Your task to perform on an android device: change keyboard looks Image 0: 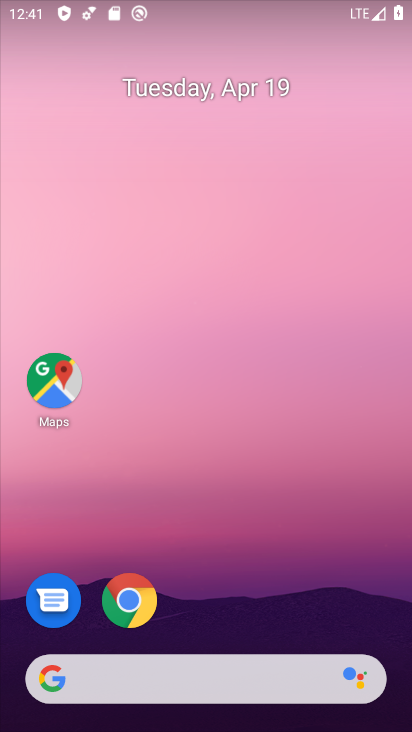
Step 0: drag from (247, 615) to (257, 102)
Your task to perform on an android device: change keyboard looks Image 1: 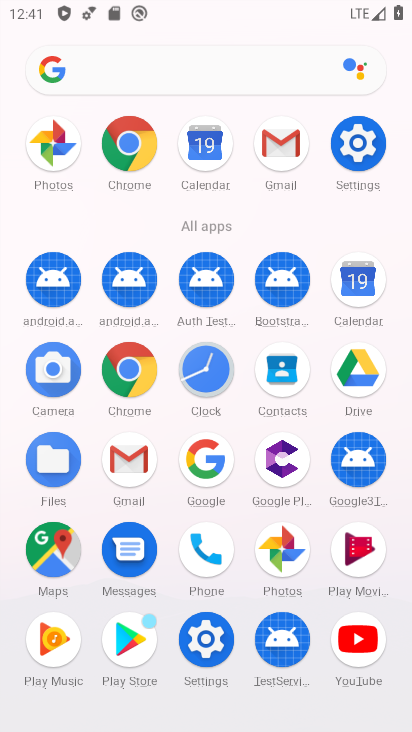
Step 1: click (359, 148)
Your task to perform on an android device: change keyboard looks Image 2: 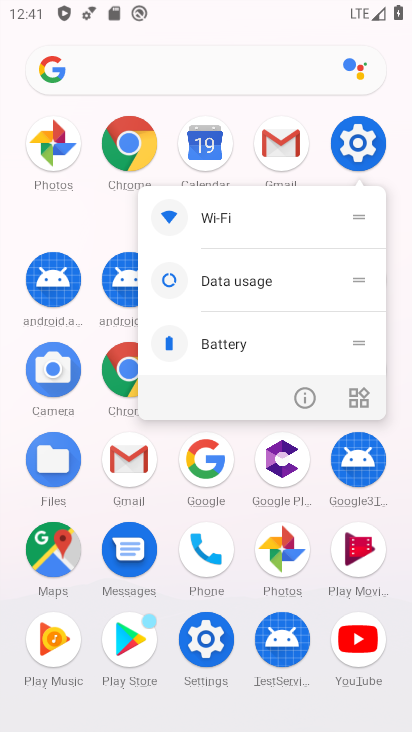
Step 2: click (359, 148)
Your task to perform on an android device: change keyboard looks Image 3: 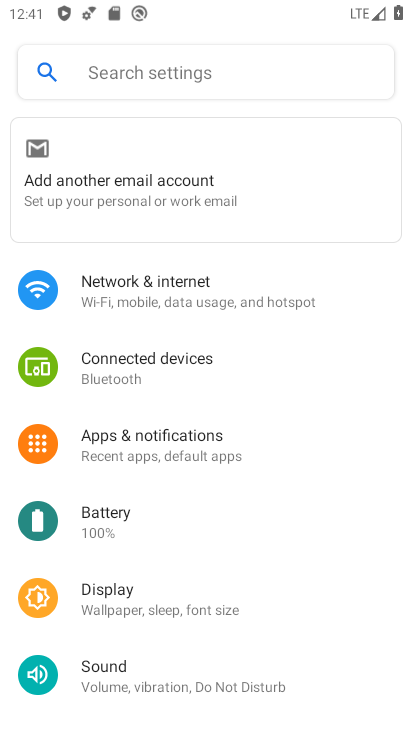
Step 3: drag from (259, 595) to (286, 124)
Your task to perform on an android device: change keyboard looks Image 4: 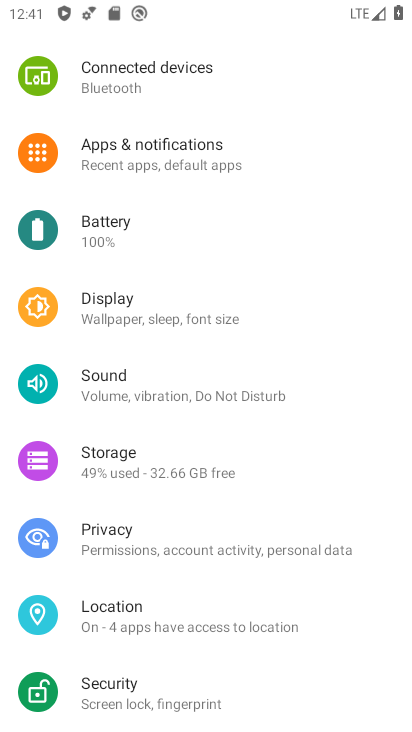
Step 4: drag from (189, 582) to (198, 108)
Your task to perform on an android device: change keyboard looks Image 5: 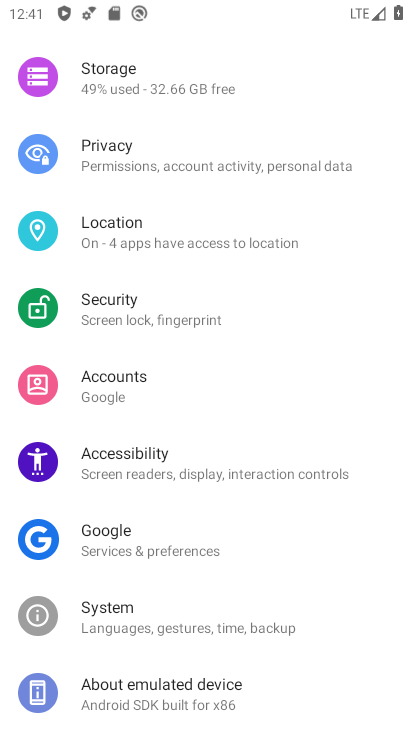
Step 5: drag from (228, 626) to (264, 202)
Your task to perform on an android device: change keyboard looks Image 6: 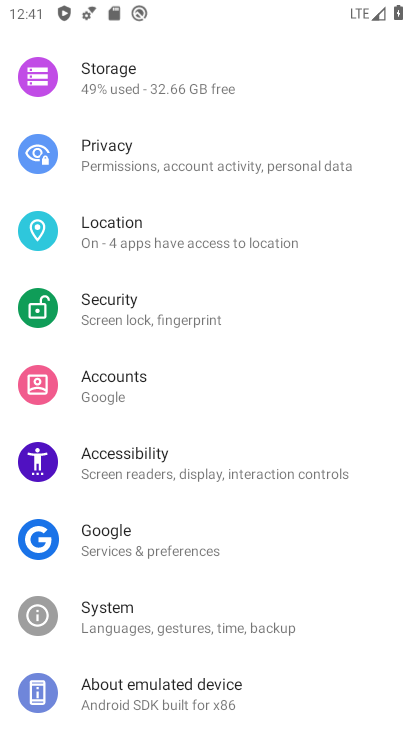
Step 6: click (149, 616)
Your task to perform on an android device: change keyboard looks Image 7: 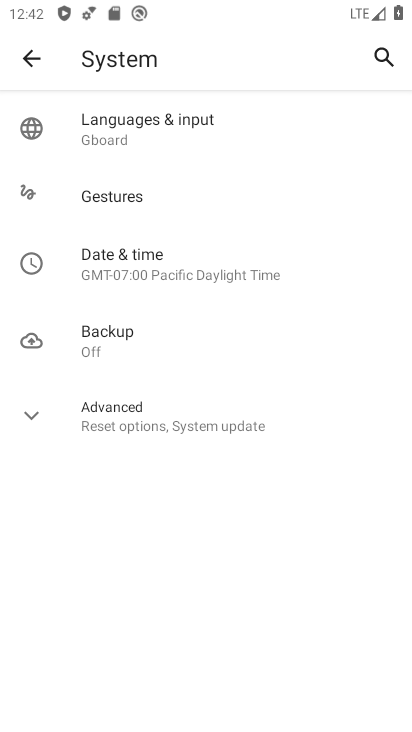
Step 7: click (202, 118)
Your task to perform on an android device: change keyboard looks Image 8: 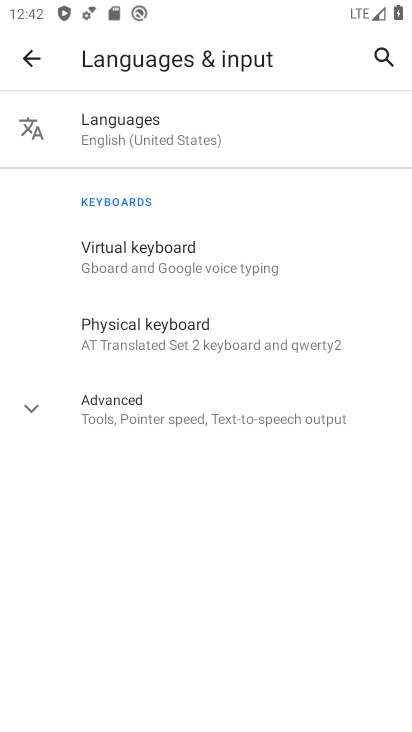
Step 8: click (156, 270)
Your task to perform on an android device: change keyboard looks Image 9: 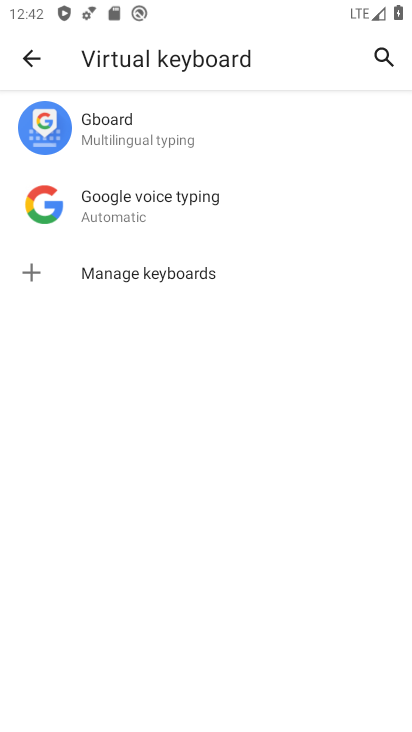
Step 9: click (162, 135)
Your task to perform on an android device: change keyboard looks Image 10: 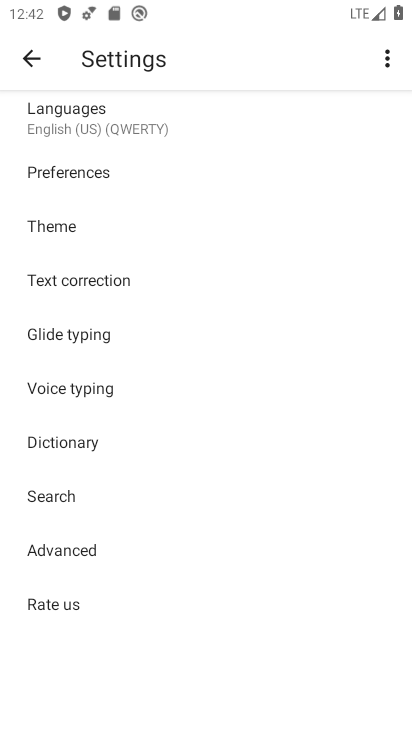
Step 10: click (71, 222)
Your task to perform on an android device: change keyboard looks Image 11: 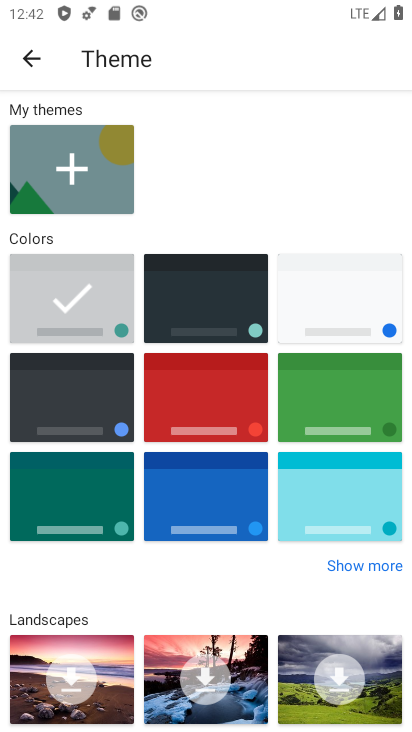
Step 11: click (362, 294)
Your task to perform on an android device: change keyboard looks Image 12: 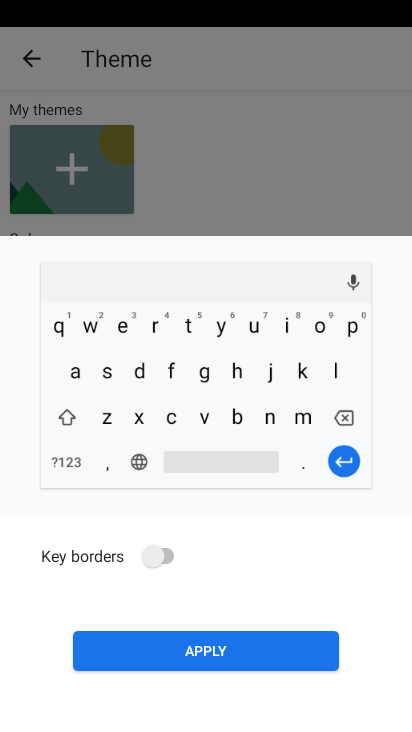
Step 12: click (260, 658)
Your task to perform on an android device: change keyboard looks Image 13: 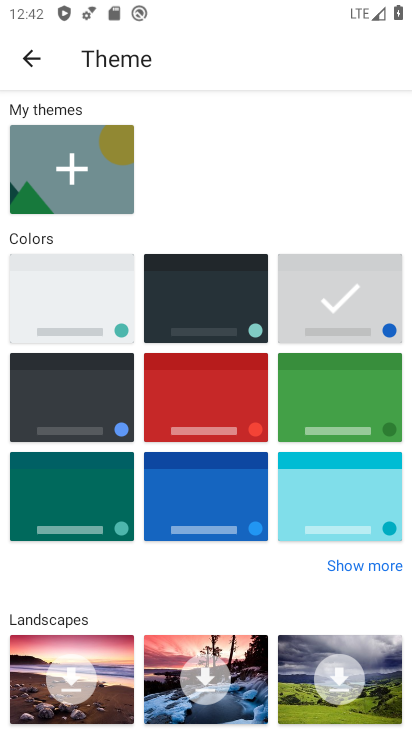
Step 13: task complete